Your task to perform on an android device: toggle pop-ups in chrome Image 0: 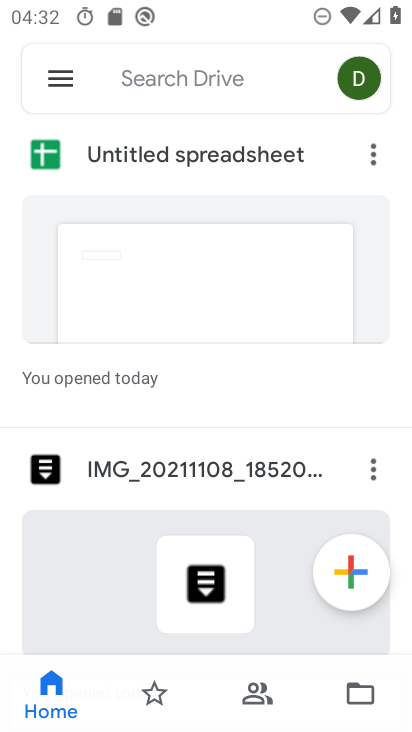
Step 0: press home button
Your task to perform on an android device: toggle pop-ups in chrome Image 1: 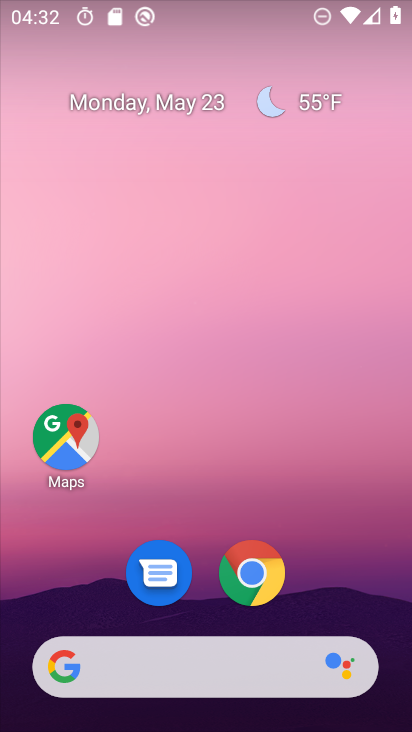
Step 1: drag from (321, 575) to (321, 113)
Your task to perform on an android device: toggle pop-ups in chrome Image 2: 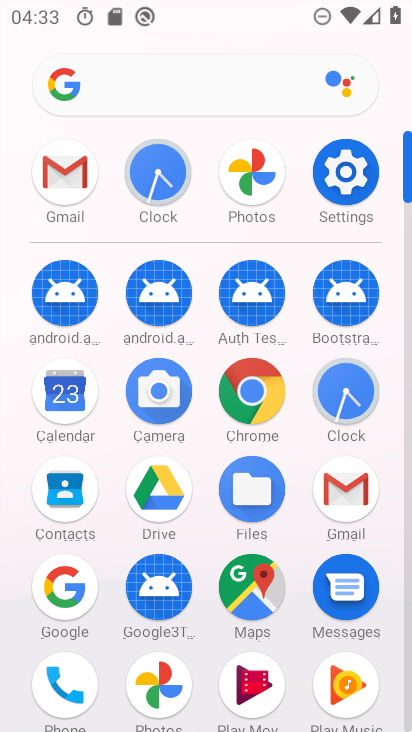
Step 2: drag from (302, 648) to (340, 269)
Your task to perform on an android device: toggle pop-ups in chrome Image 3: 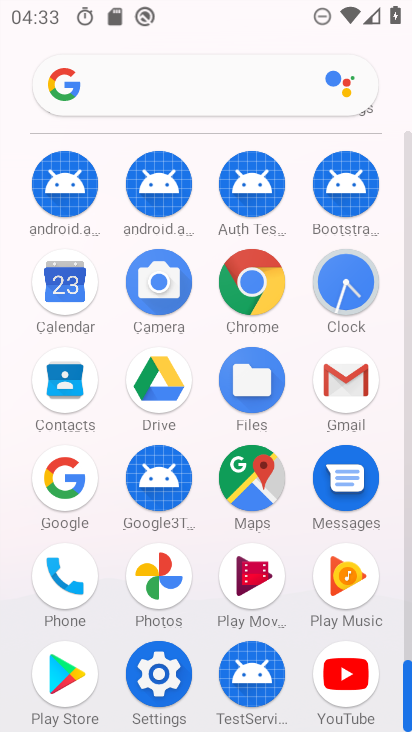
Step 3: drag from (203, 604) to (183, 305)
Your task to perform on an android device: toggle pop-ups in chrome Image 4: 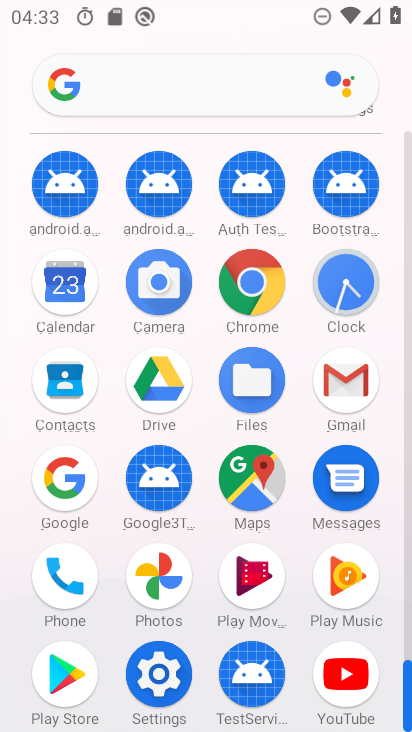
Step 4: click (262, 285)
Your task to perform on an android device: toggle pop-ups in chrome Image 5: 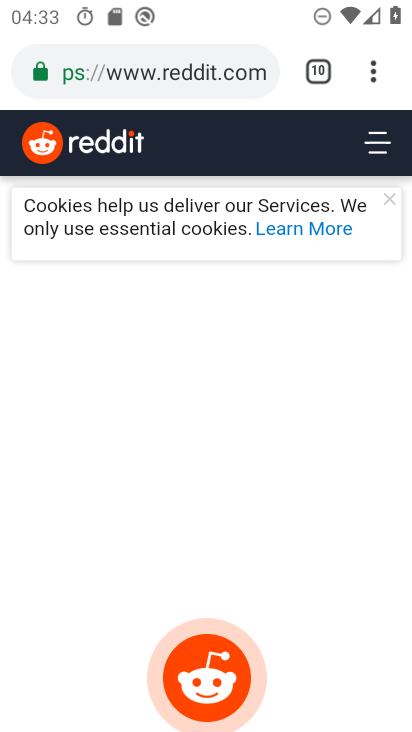
Step 5: click (382, 66)
Your task to perform on an android device: toggle pop-ups in chrome Image 6: 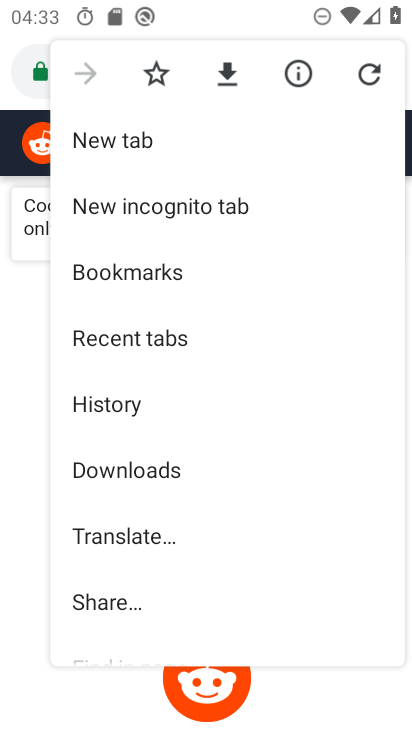
Step 6: drag from (189, 552) to (173, 225)
Your task to perform on an android device: toggle pop-ups in chrome Image 7: 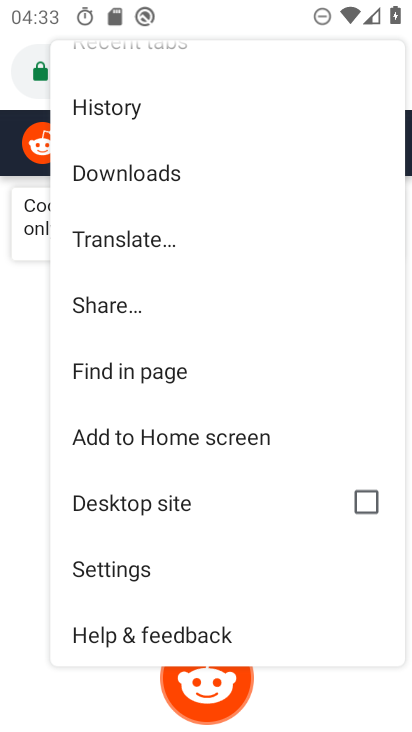
Step 7: click (142, 572)
Your task to perform on an android device: toggle pop-ups in chrome Image 8: 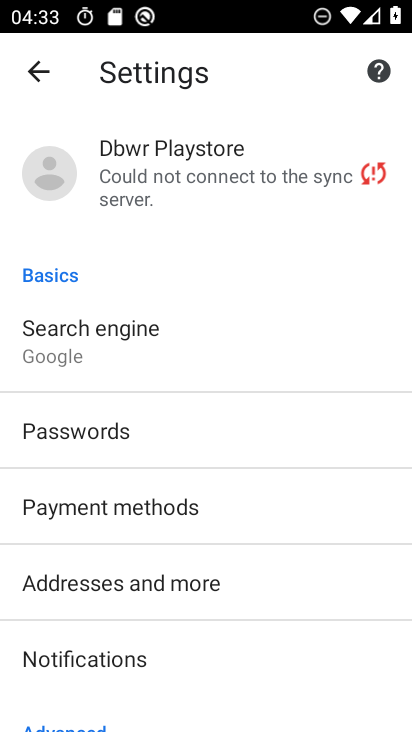
Step 8: drag from (263, 638) to (237, 229)
Your task to perform on an android device: toggle pop-ups in chrome Image 9: 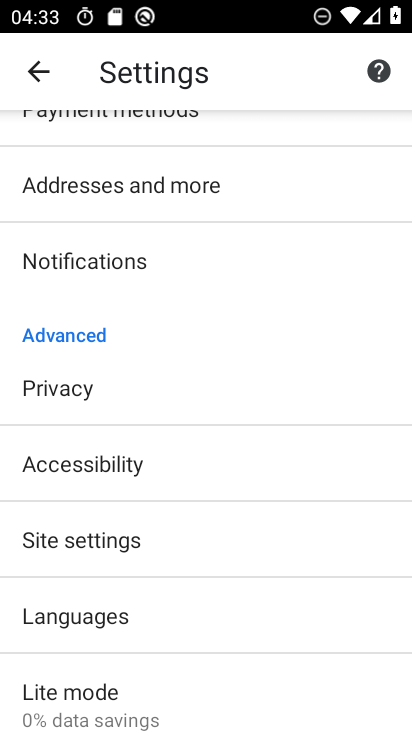
Step 9: click (144, 549)
Your task to perform on an android device: toggle pop-ups in chrome Image 10: 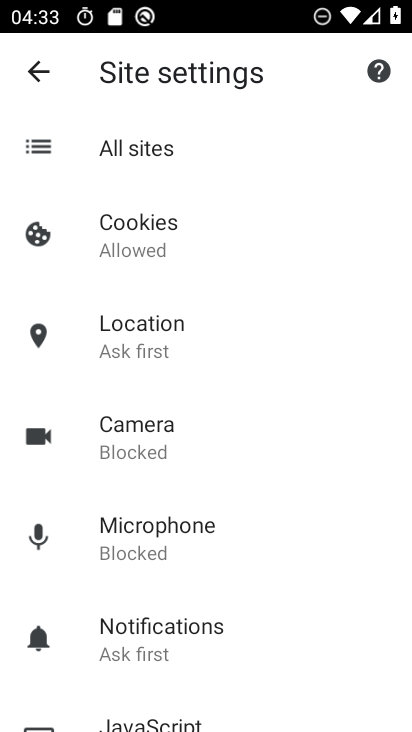
Step 10: drag from (266, 657) to (304, 241)
Your task to perform on an android device: toggle pop-ups in chrome Image 11: 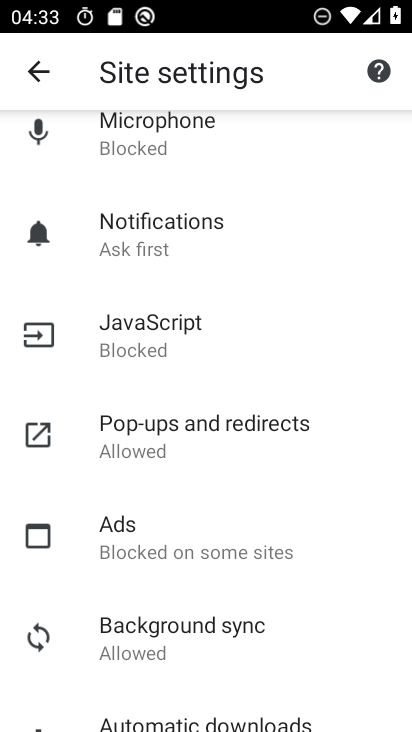
Step 11: click (232, 442)
Your task to perform on an android device: toggle pop-ups in chrome Image 12: 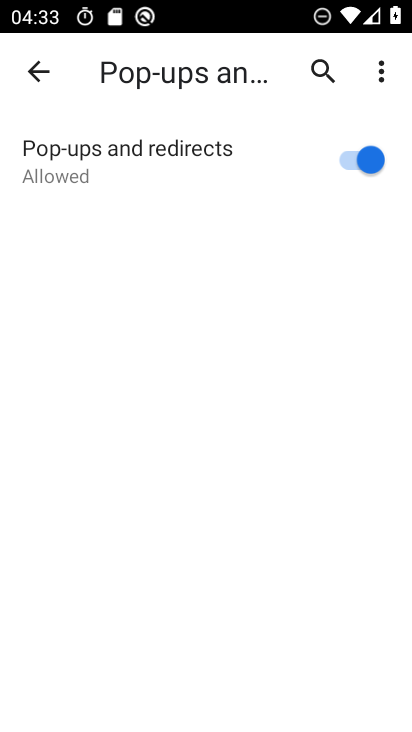
Step 12: click (346, 155)
Your task to perform on an android device: toggle pop-ups in chrome Image 13: 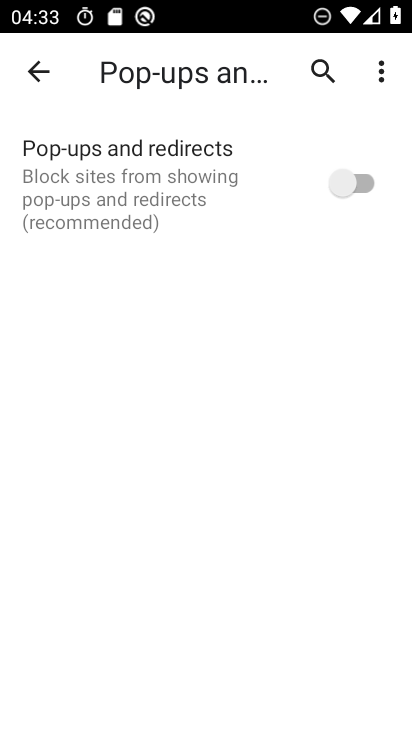
Step 13: task complete